Your task to perform on an android device: toggle data saver in the chrome app Image 0: 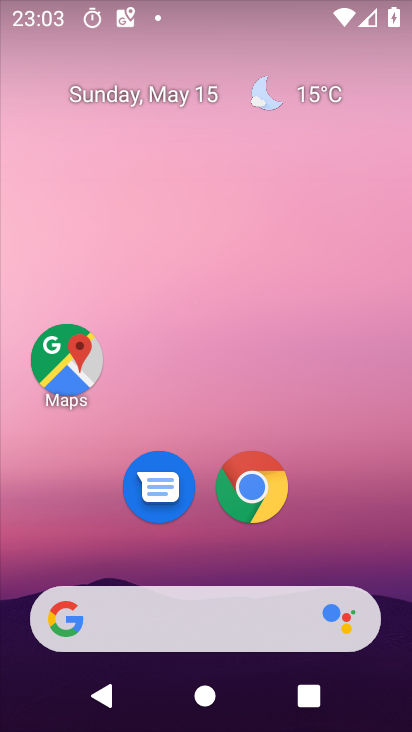
Step 0: click (257, 481)
Your task to perform on an android device: toggle data saver in the chrome app Image 1: 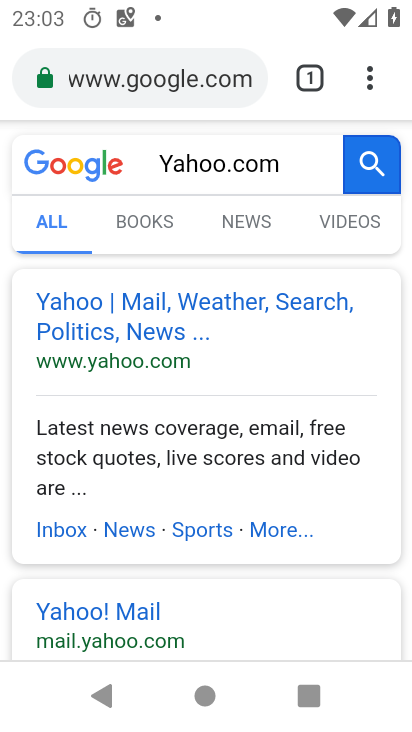
Step 1: click (358, 76)
Your task to perform on an android device: toggle data saver in the chrome app Image 2: 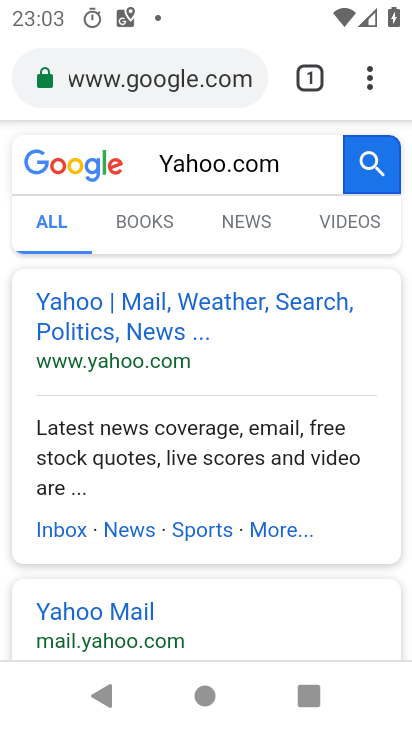
Step 2: drag from (296, 577) to (287, 316)
Your task to perform on an android device: toggle data saver in the chrome app Image 3: 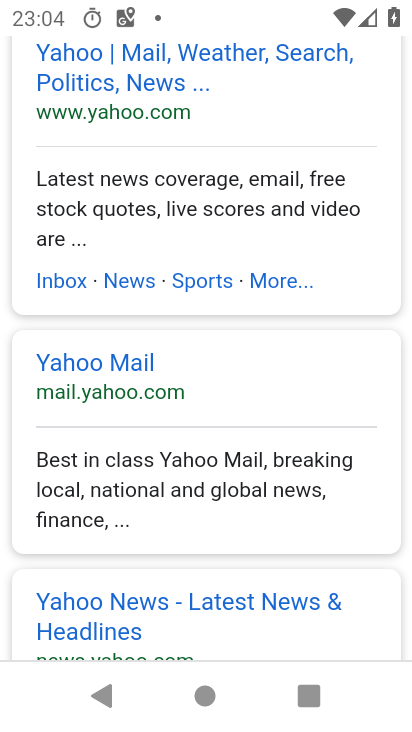
Step 3: drag from (328, 196) to (304, 569)
Your task to perform on an android device: toggle data saver in the chrome app Image 4: 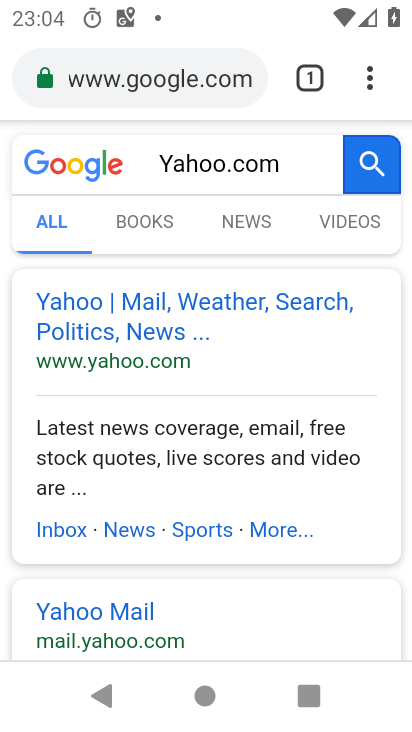
Step 4: click (367, 70)
Your task to perform on an android device: toggle data saver in the chrome app Image 5: 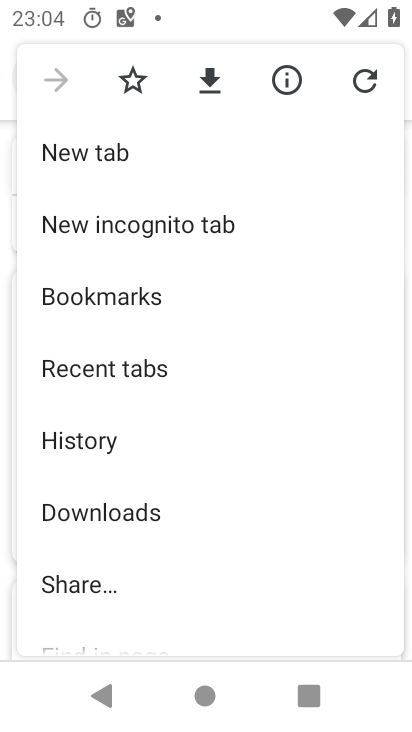
Step 5: drag from (283, 477) to (277, 360)
Your task to perform on an android device: toggle data saver in the chrome app Image 6: 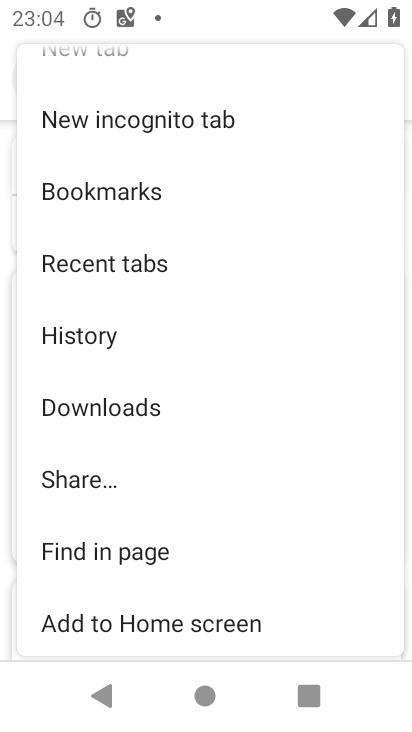
Step 6: drag from (303, 610) to (328, 341)
Your task to perform on an android device: toggle data saver in the chrome app Image 7: 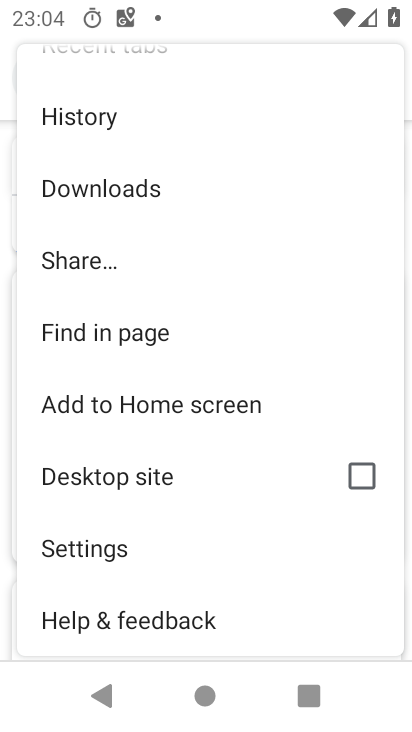
Step 7: click (97, 548)
Your task to perform on an android device: toggle data saver in the chrome app Image 8: 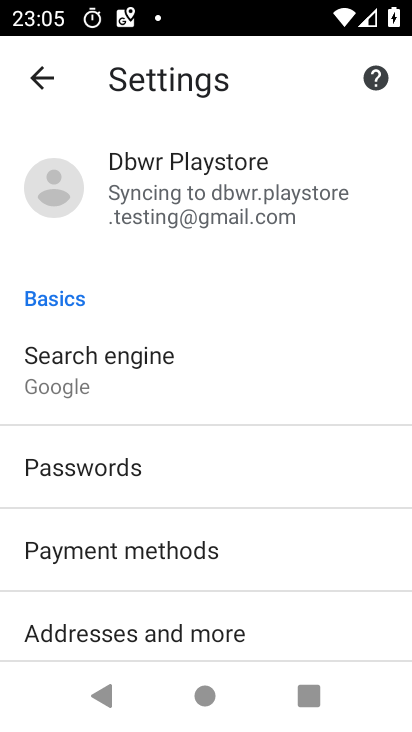
Step 8: drag from (305, 613) to (283, 351)
Your task to perform on an android device: toggle data saver in the chrome app Image 9: 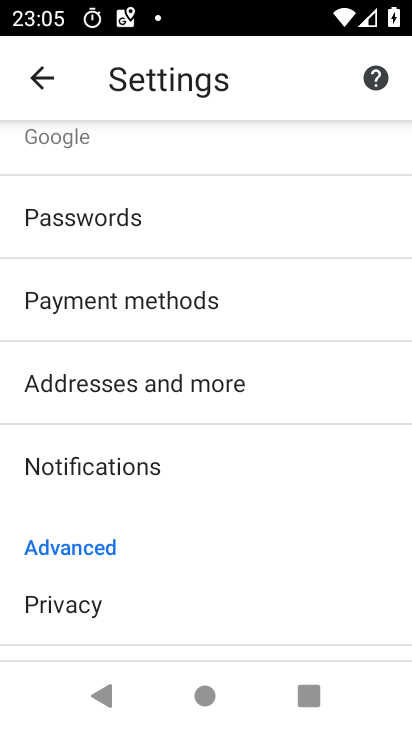
Step 9: drag from (253, 596) to (240, 357)
Your task to perform on an android device: toggle data saver in the chrome app Image 10: 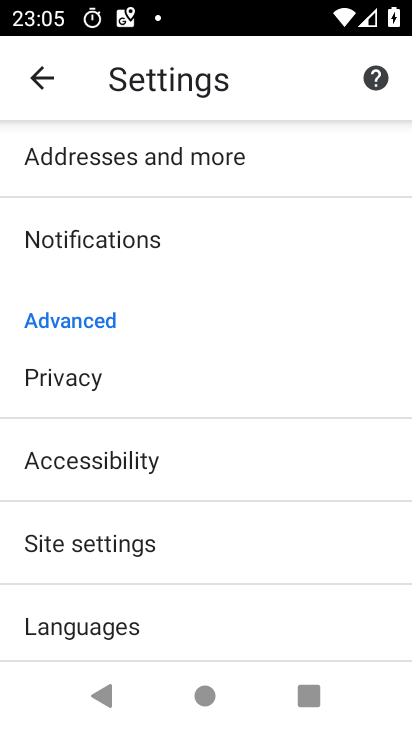
Step 10: drag from (198, 632) to (179, 392)
Your task to perform on an android device: toggle data saver in the chrome app Image 11: 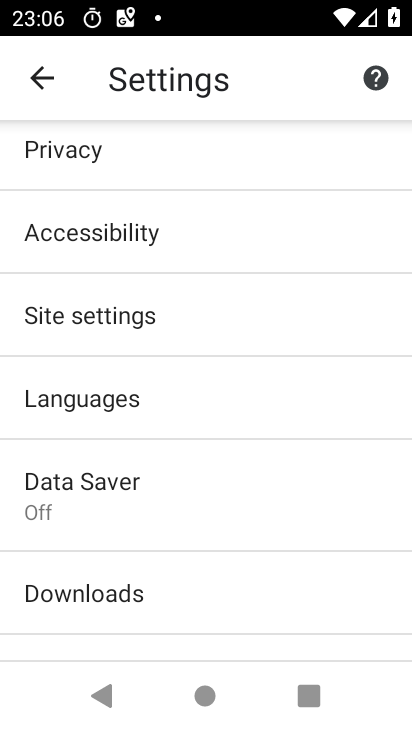
Step 11: click (51, 477)
Your task to perform on an android device: toggle data saver in the chrome app Image 12: 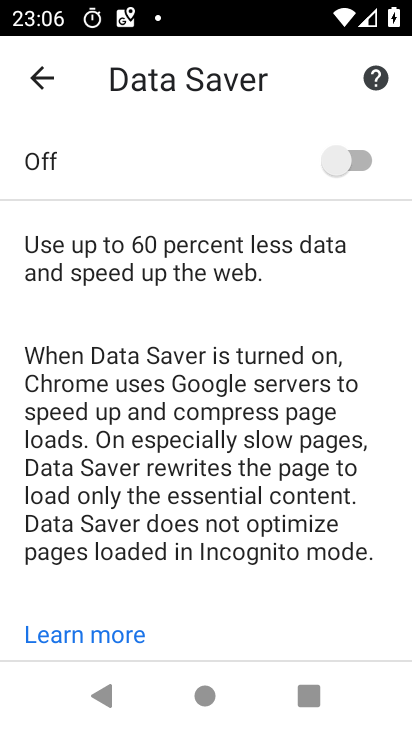
Step 12: click (355, 149)
Your task to perform on an android device: toggle data saver in the chrome app Image 13: 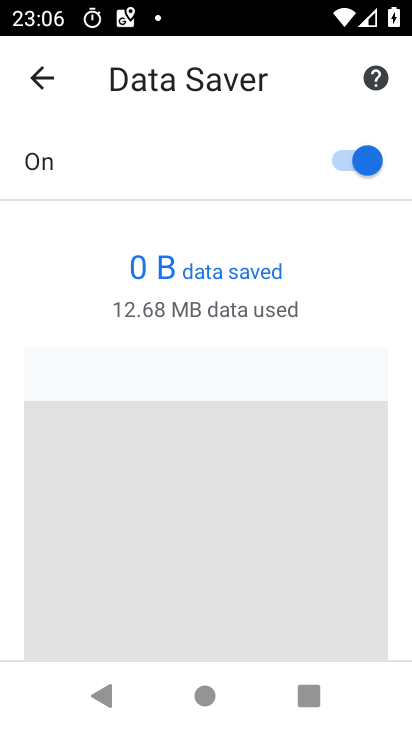
Step 13: task complete